Your task to perform on an android device: turn on improve location accuracy Image 0: 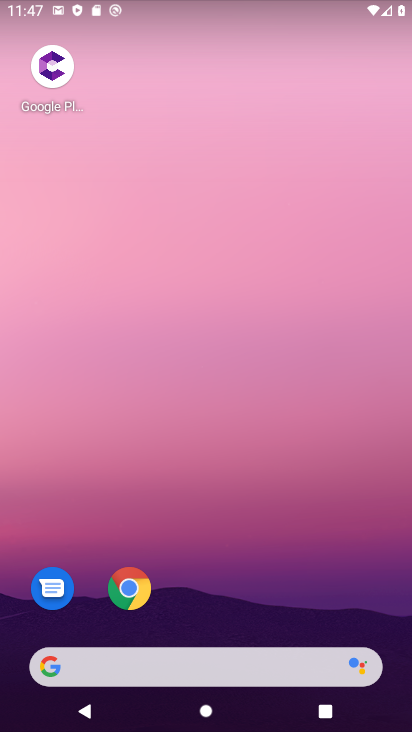
Step 0: drag from (339, 617) to (281, 59)
Your task to perform on an android device: turn on improve location accuracy Image 1: 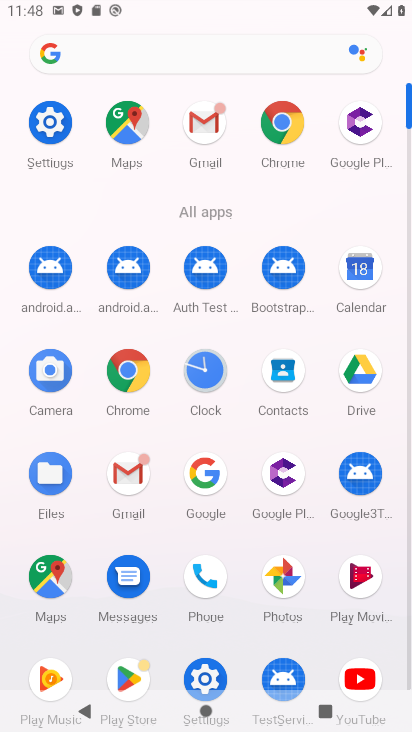
Step 1: click (42, 121)
Your task to perform on an android device: turn on improve location accuracy Image 2: 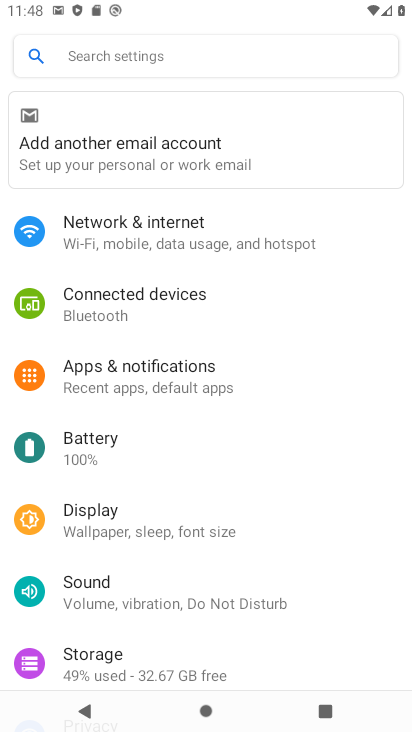
Step 2: drag from (139, 670) to (138, 331)
Your task to perform on an android device: turn on improve location accuracy Image 3: 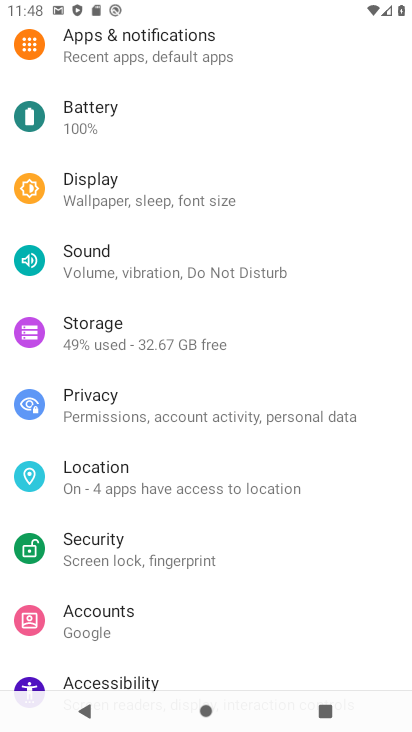
Step 3: click (101, 486)
Your task to perform on an android device: turn on improve location accuracy Image 4: 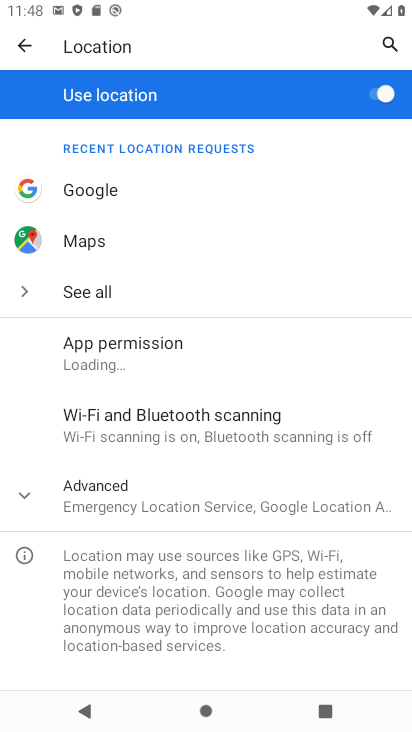
Step 4: click (153, 498)
Your task to perform on an android device: turn on improve location accuracy Image 5: 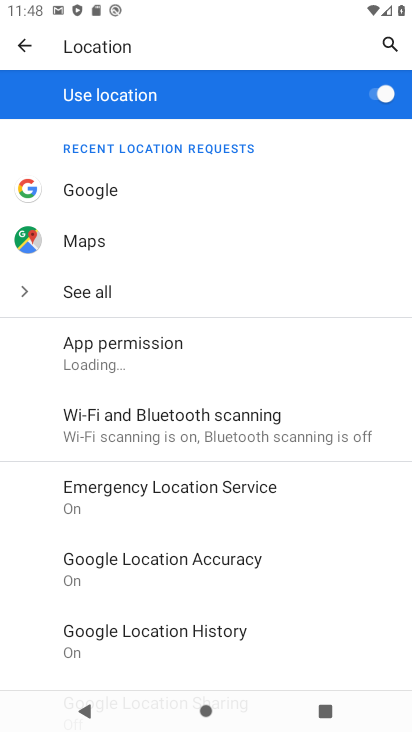
Step 5: click (133, 561)
Your task to perform on an android device: turn on improve location accuracy Image 6: 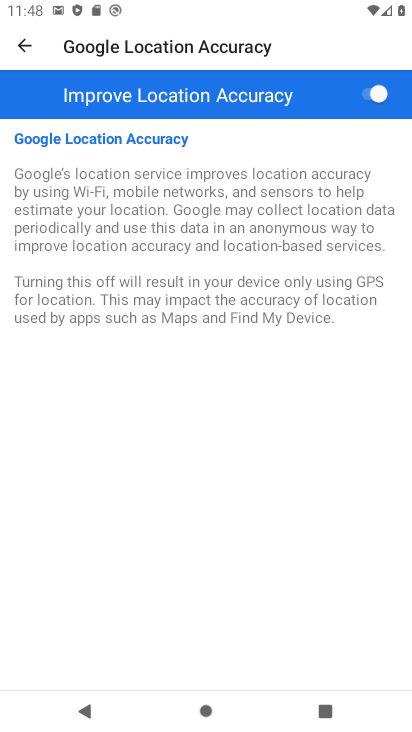
Step 6: task complete